Your task to perform on an android device: Go to notification settings Image 0: 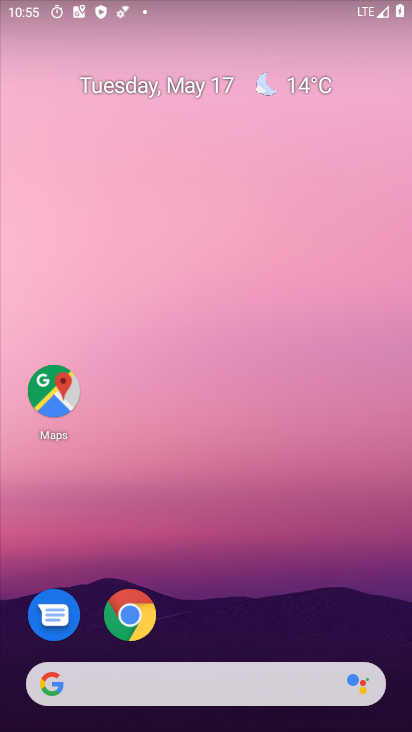
Step 0: drag from (175, 672) to (308, 59)
Your task to perform on an android device: Go to notification settings Image 1: 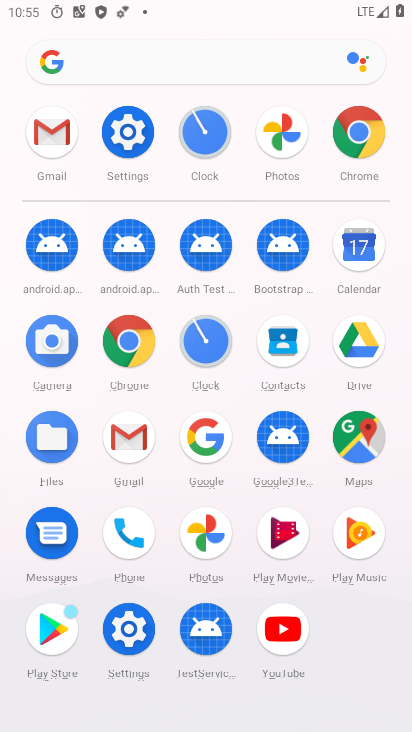
Step 1: click (131, 131)
Your task to perform on an android device: Go to notification settings Image 2: 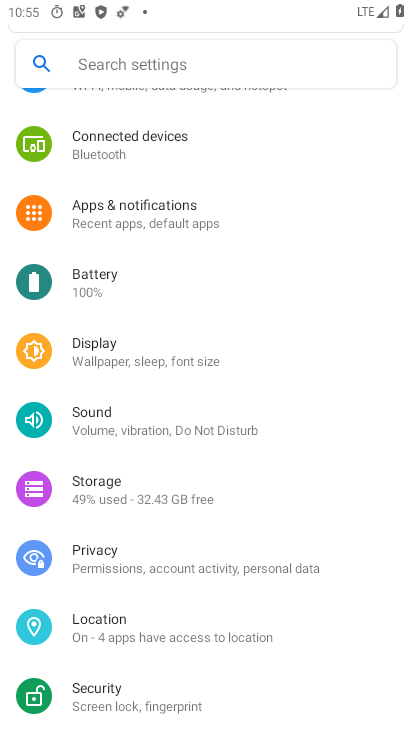
Step 2: click (168, 211)
Your task to perform on an android device: Go to notification settings Image 3: 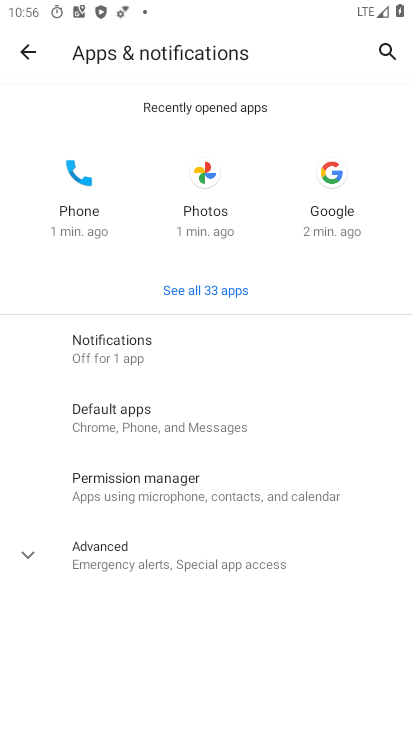
Step 3: click (115, 354)
Your task to perform on an android device: Go to notification settings Image 4: 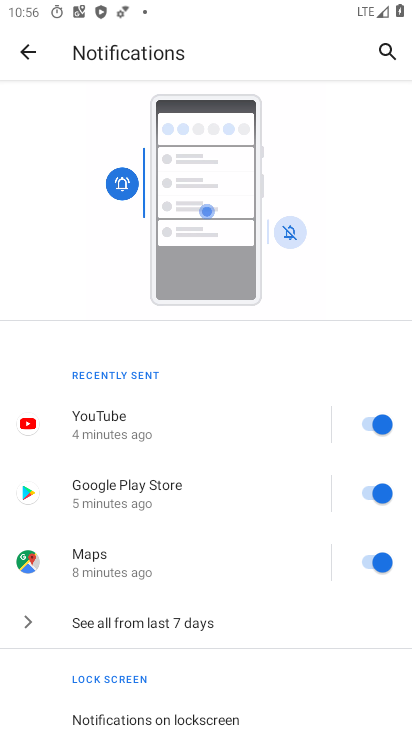
Step 4: task complete